Your task to perform on an android device: Is it going to rain this weekend? Image 0: 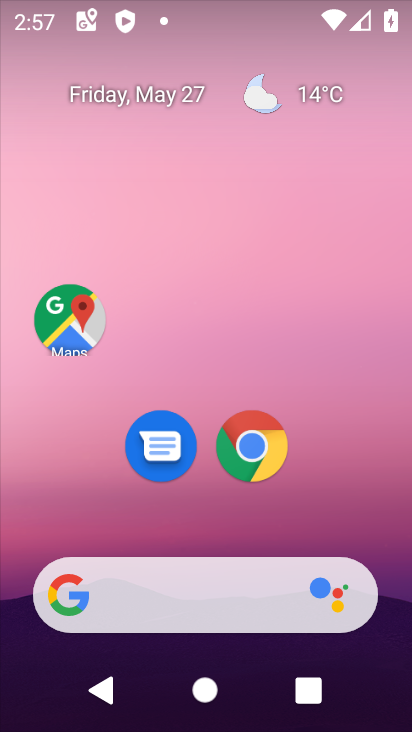
Step 0: press home button
Your task to perform on an android device: Is it going to rain this weekend? Image 1: 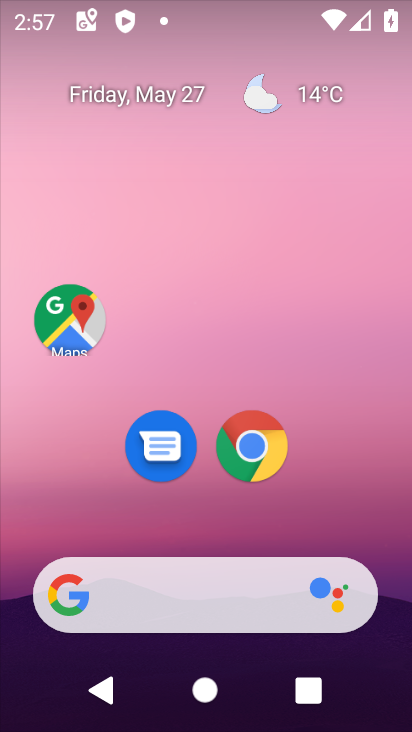
Step 1: click (82, 598)
Your task to perform on an android device: Is it going to rain this weekend? Image 2: 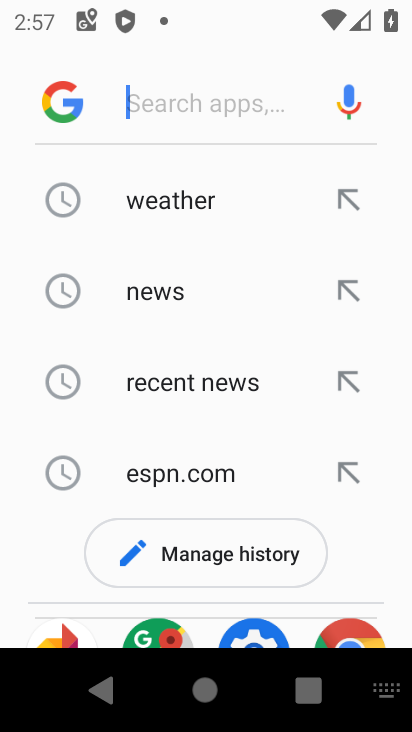
Step 2: click (191, 199)
Your task to perform on an android device: Is it going to rain this weekend? Image 3: 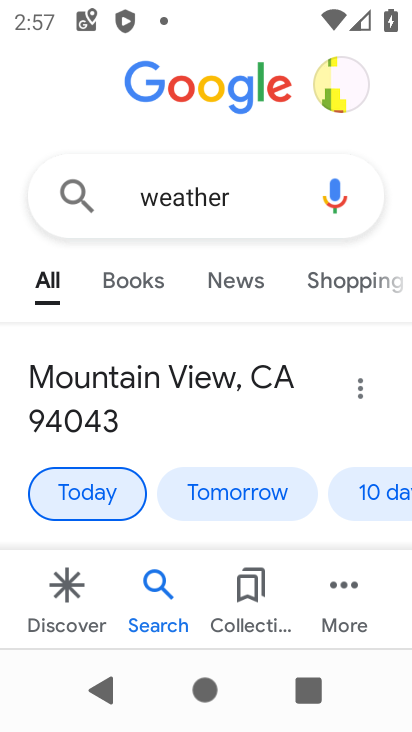
Step 3: click (388, 488)
Your task to perform on an android device: Is it going to rain this weekend? Image 4: 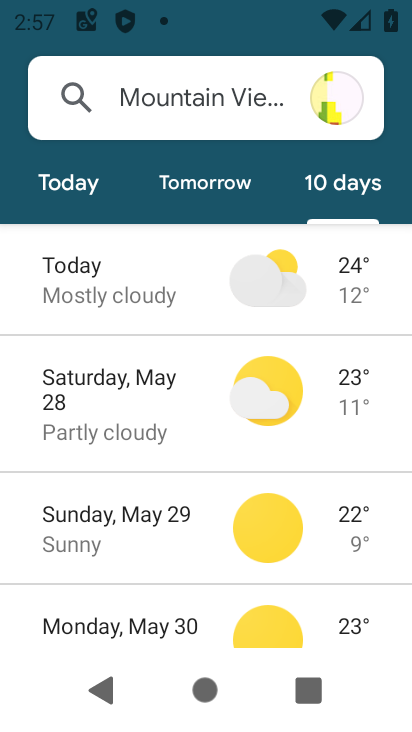
Step 4: click (93, 387)
Your task to perform on an android device: Is it going to rain this weekend? Image 5: 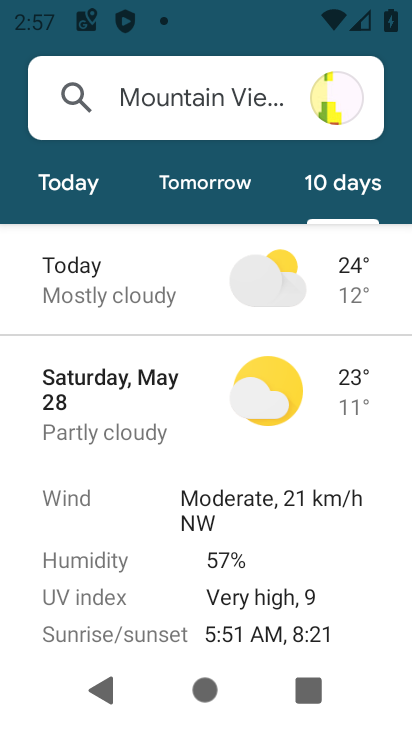
Step 5: task complete